Your task to perform on an android device: Open settings on Google Maps Image 0: 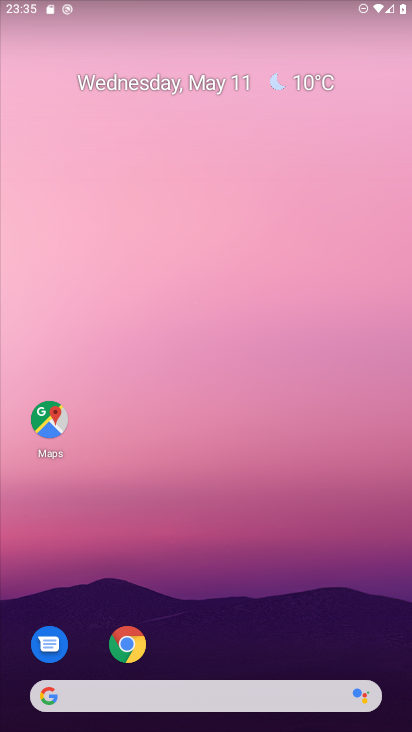
Step 0: click (56, 449)
Your task to perform on an android device: Open settings on Google Maps Image 1: 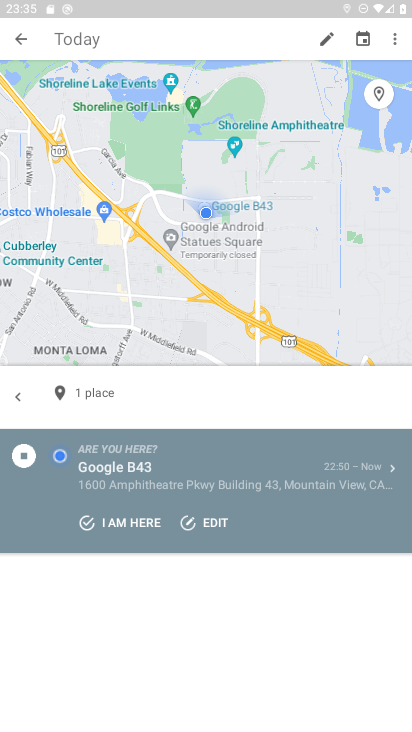
Step 1: click (11, 38)
Your task to perform on an android device: Open settings on Google Maps Image 2: 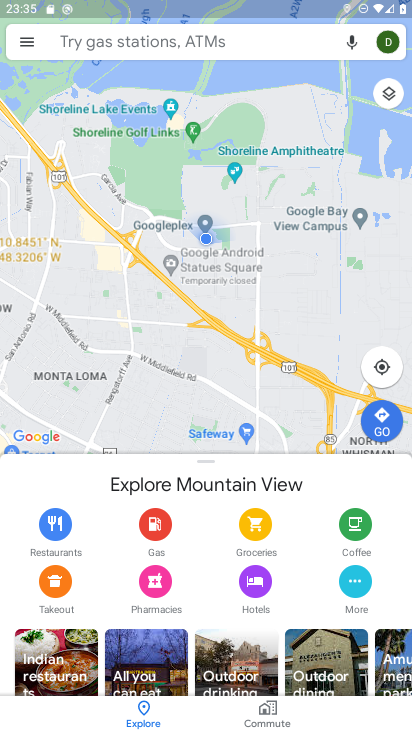
Step 2: click (31, 41)
Your task to perform on an android device: Open settings on Google Maps Image 3: 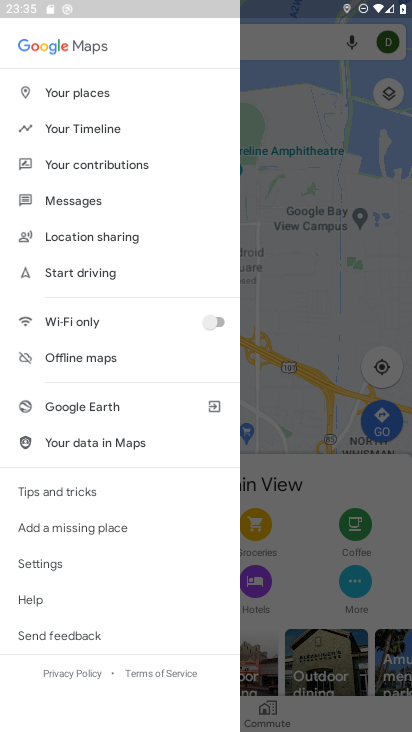
Step 3: click (48, 560)
Your task to perform on an android device: Open settings on Google Maps Image 4: 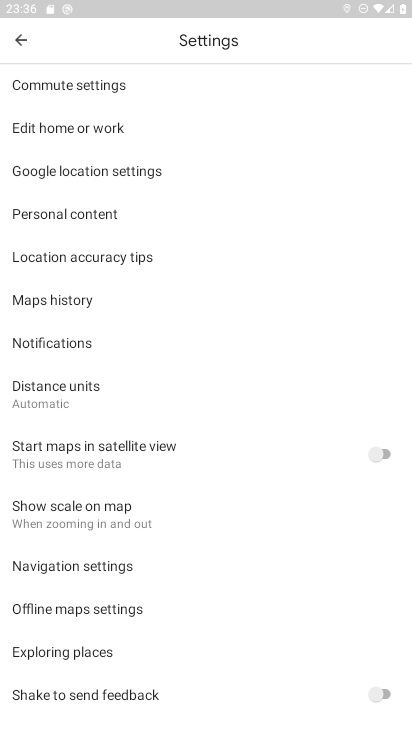
Step 4: task complete